Your task to perform on an android device: Is it going to rain today? Image 0: 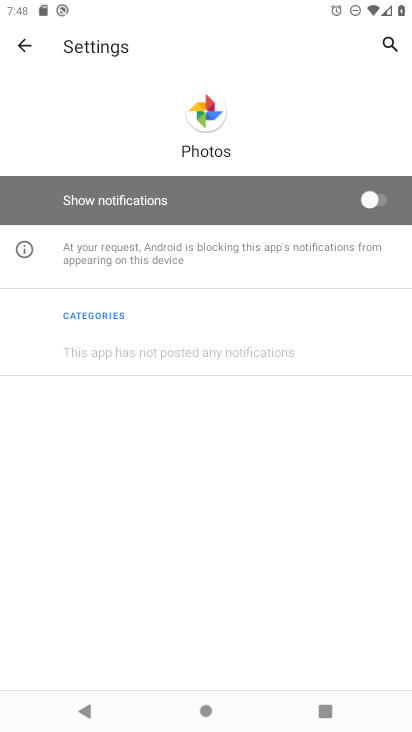
Step 0: press home button
Your task to perform on an android device: Is it going to rain today? Image 1: 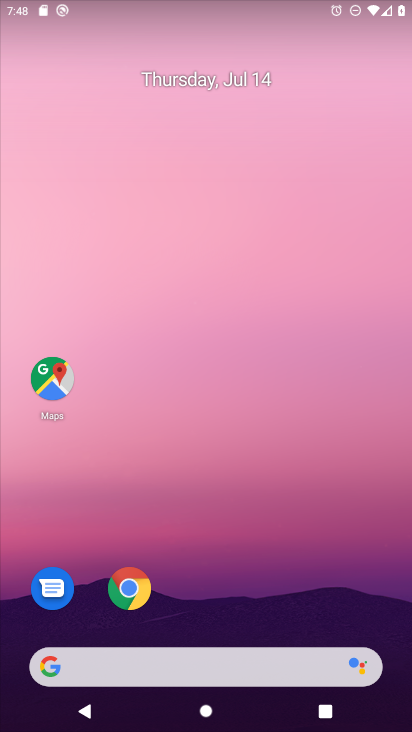
Step 1: click (56, 686)
Your task to perform on an android device: Is it going to rain today? Image 2: 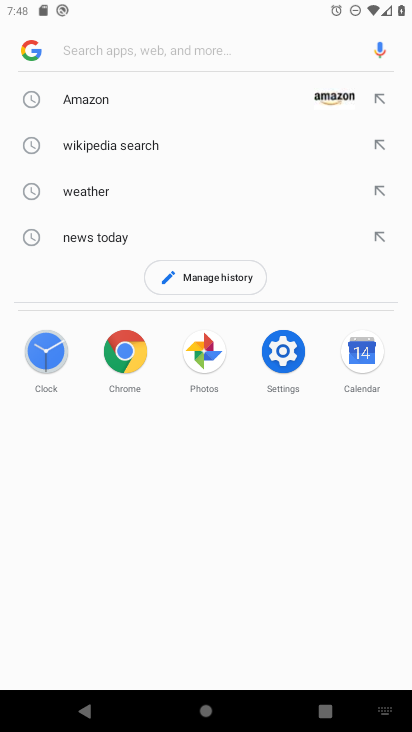
Step 2: type "Is it going to rain today?"
Your task to perform on an android device: Is it going to rain today? Image 3: 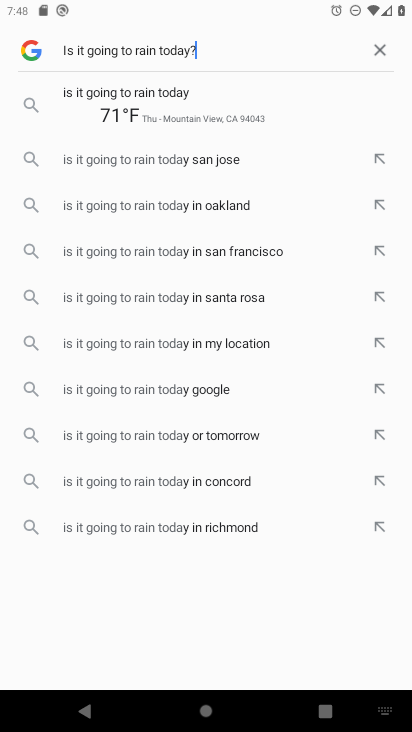
Step 3: type ""
Your task to perform on an android device: Is it going to rain today? Image 4: 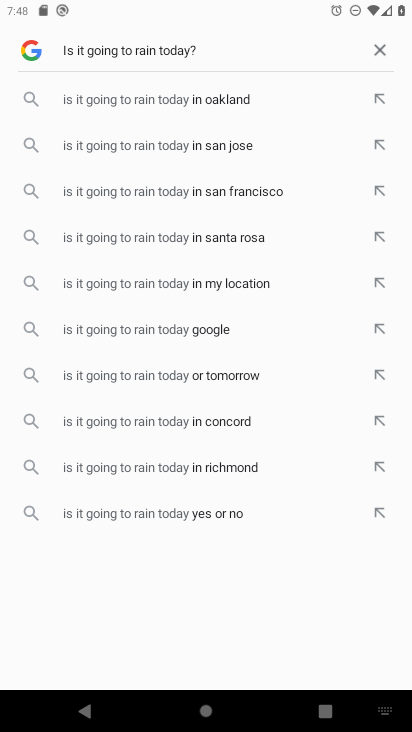
Step 4: type ""
Your task to perform on an android device: Is it going to rain today? Image 5: 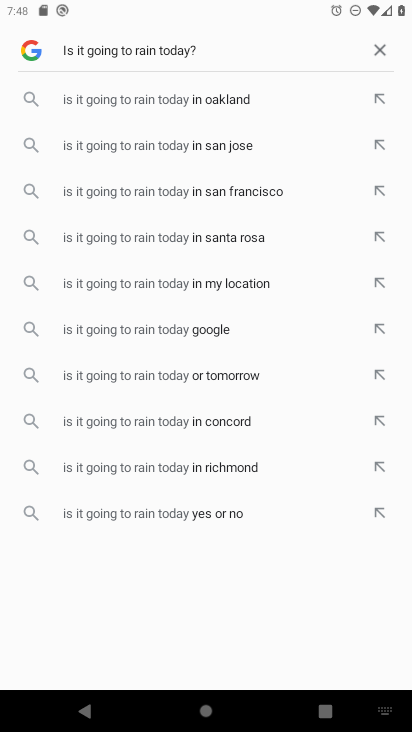
Step 5: type ""
Your task to perform on an android device: Is it going to rain today? Image 6: 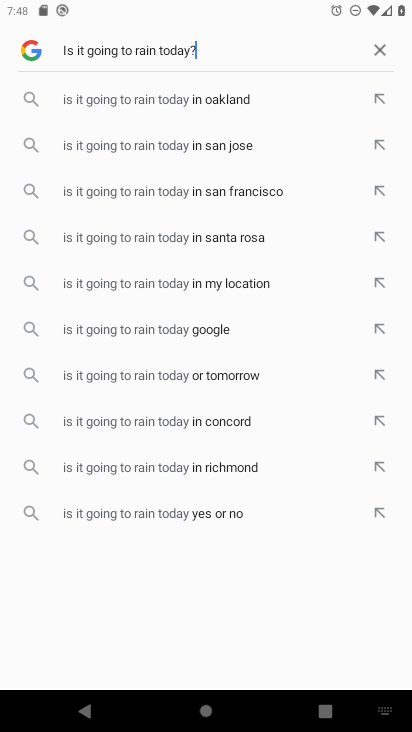
Step 6: type ""
Your task to perform on an android device: Is it going to rain today? Image 7: 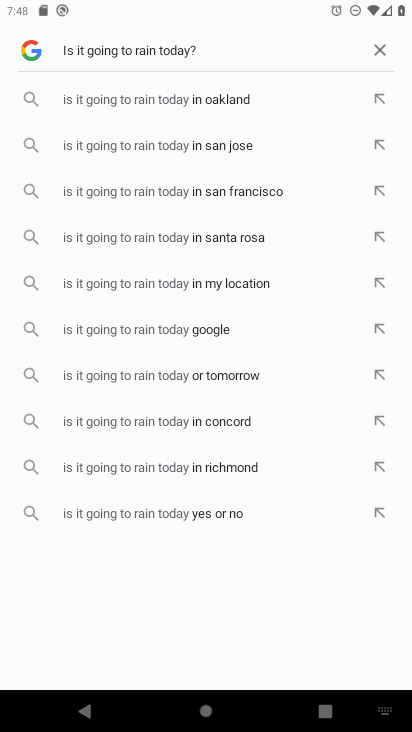
Step 7: task complete